Your task to perform on an android device: Open calendar and show me the second week of next month Image 0: 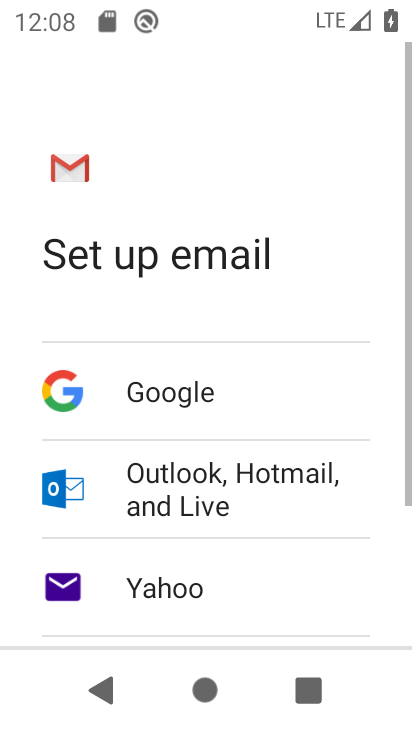
Step 0: press back button
Your task to perform on an android device: Open calendar and show me the second week of next month Image 1: 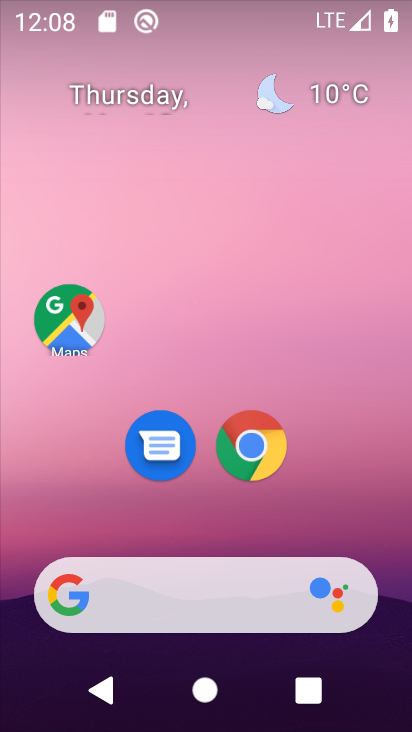
Step 1: drag from (162, 563) to (235, 33)
Your task to perform on an android device: Open calendar and show me the second week of next month Image 2: 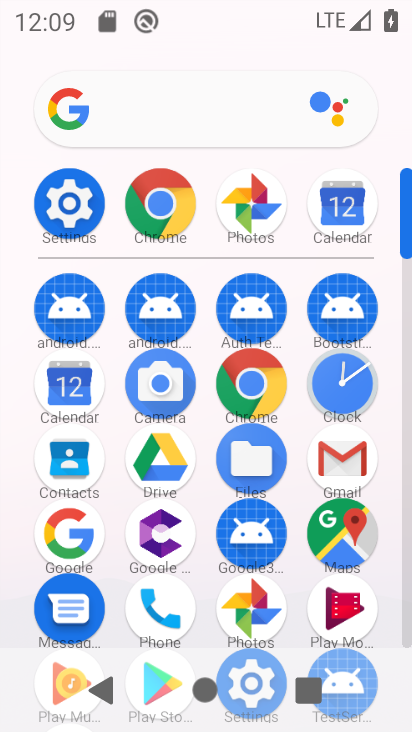
Step 2: click (64, 383)
Your task to perform on an android device: Open calendar and show me the second week of next month Image 3: 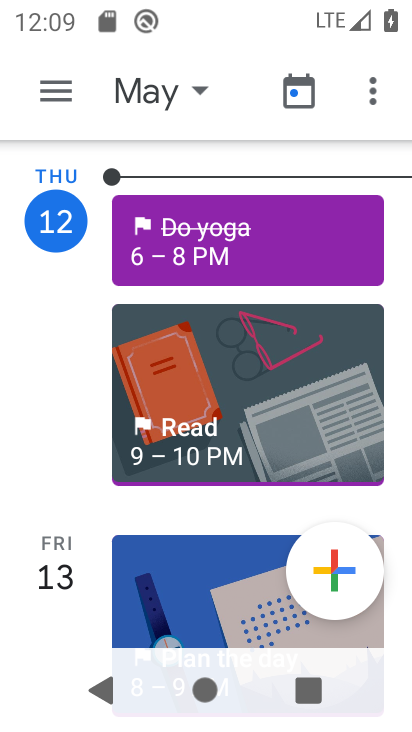
Step 3: click (196, 87)
Your task to perform on an android device: Open calendar and show me the second week of next month Image 4: 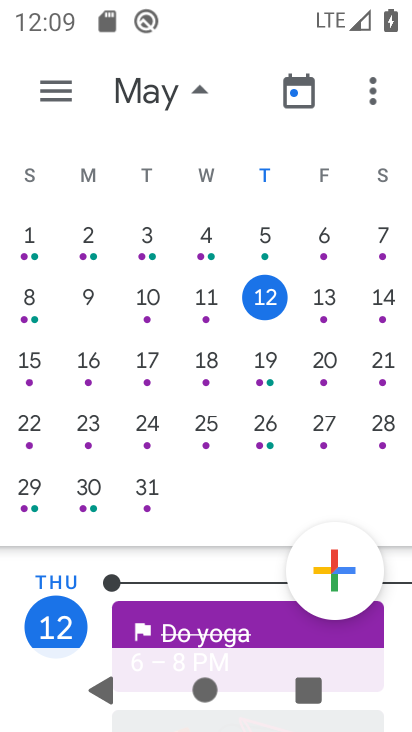
Step 4: drag from (384, 334) to (78, 338)
Your task to perform on an android device: Open calendar and show me the second week of next month Image 5: 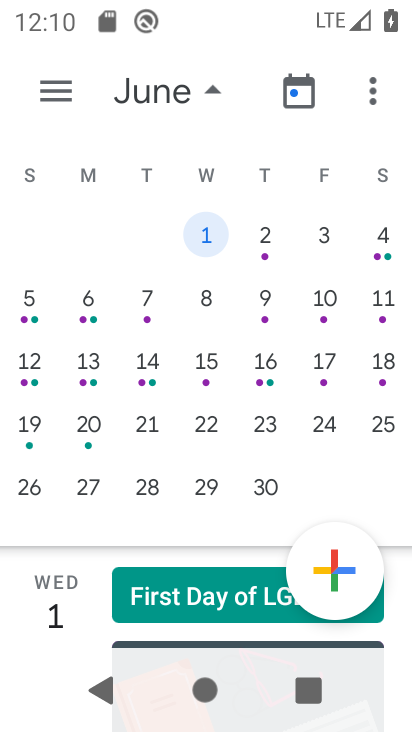
Step 5: click (86, 294)
Your task to perform on an android device: Open calendar and show me the second week of next month Image 6: 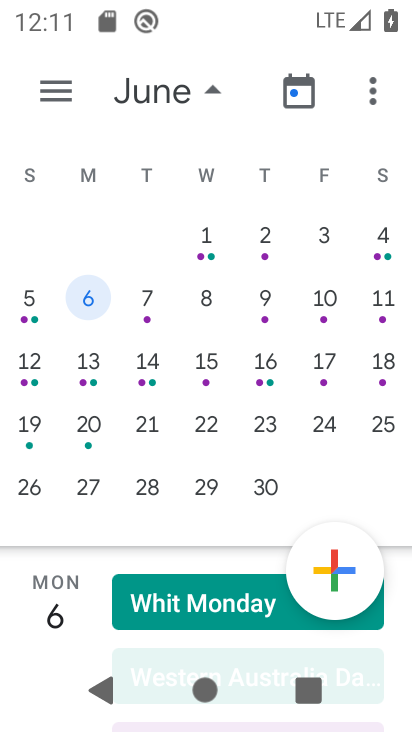
Step 6: task complete